Your task to perform on an android device: open device folders in google photos Image 0: 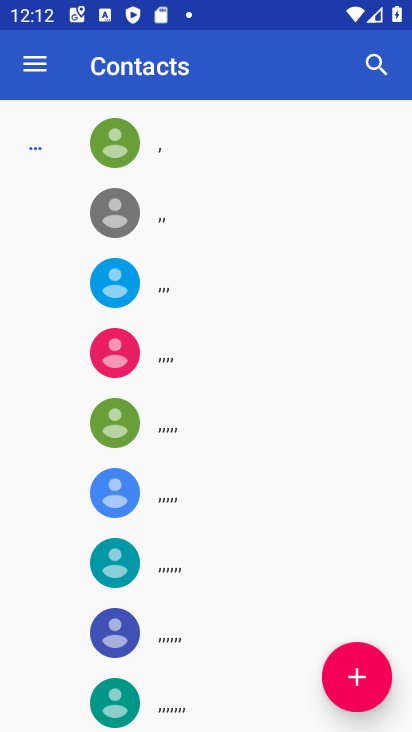
Step 0: press home button
Your task to perform on an android device: open device folders in google photos Image 1: 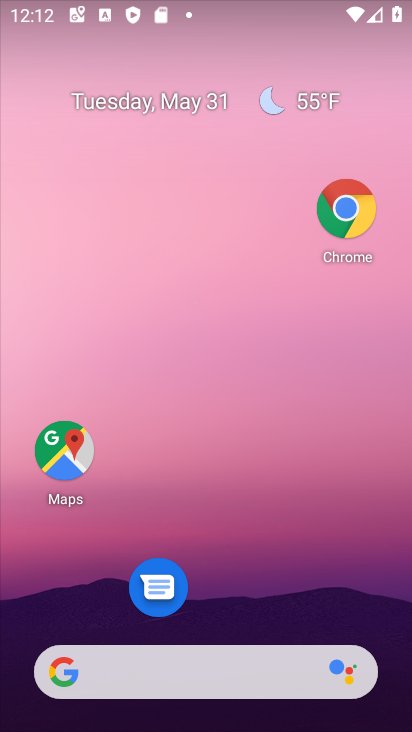
Step 1: drag from (225, 615) to (273, 122)
Your task to perform on an android device: open device folders in google photos Image 2: 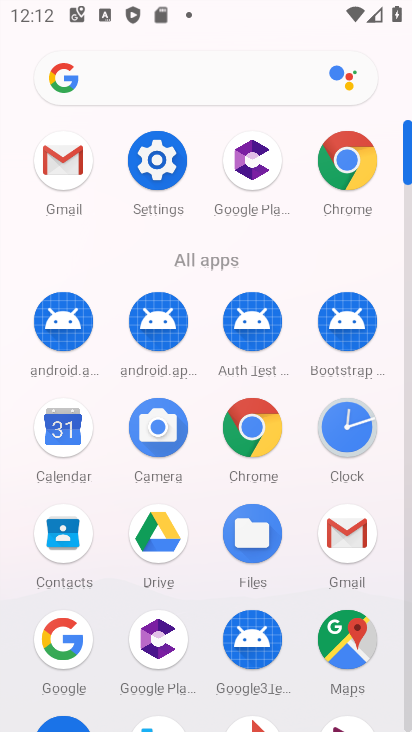
Step 2: drag from (227, 539) to (241, 248)
Your task to perform on an android device: open device folders in google photos Image 3: 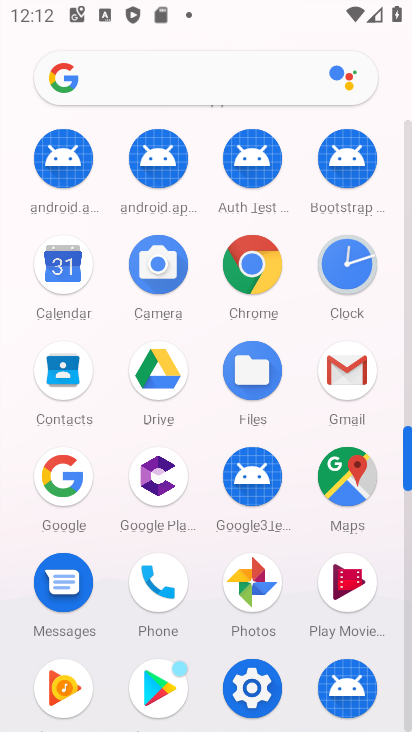
Step 3: click (263, 593)
Your task to perform on an android device: open device folders in google photos Image 4: 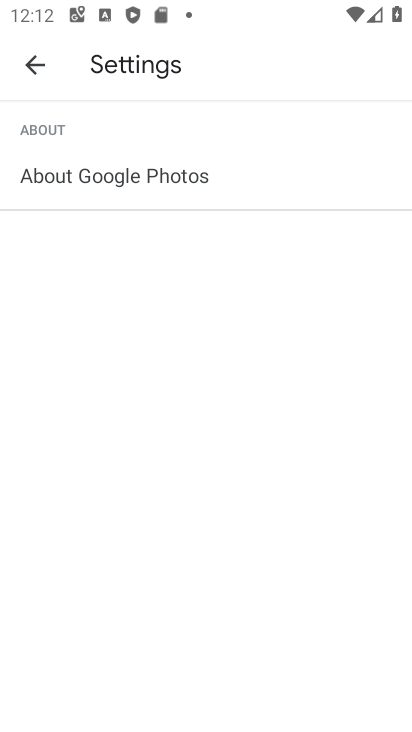
Step 4: click (48, 61)
Your task to perform on an android device: open device folders in google photos Image 5: 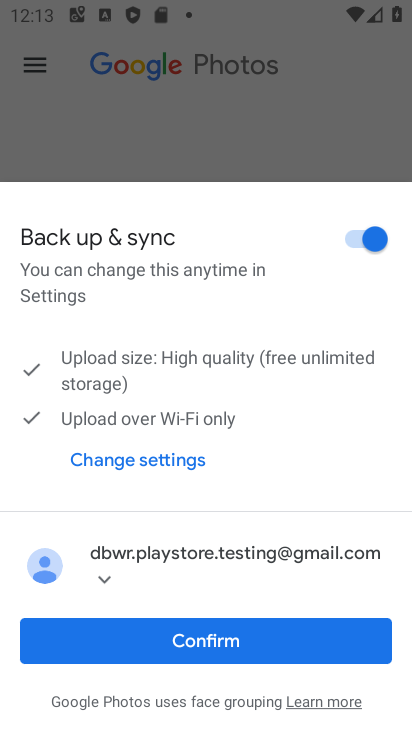
Step 5: click (299, 630)
Your task to perform on an android device: open device folders in google photos Image 6: 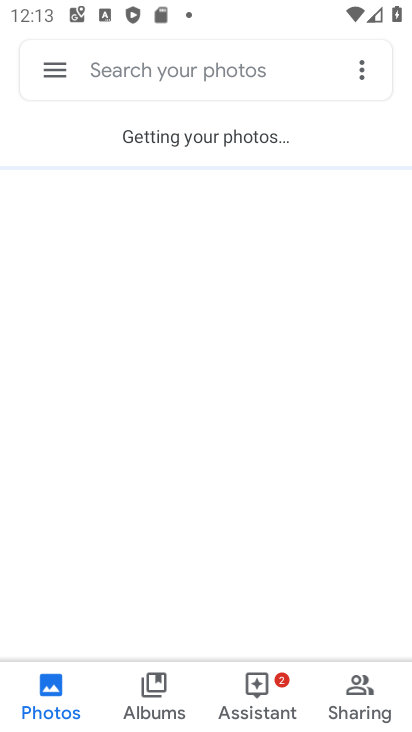
Step 6: click (66, 79)
Your task to perform on an android device: open device folders in google photos Image 7: 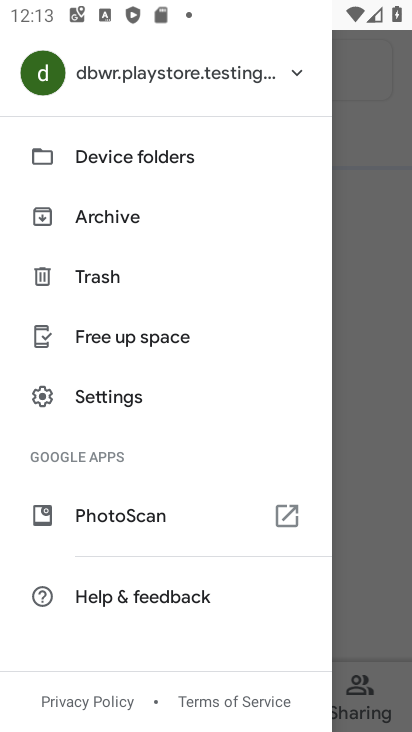
Step 7: click (130, 143)
Your task to perform on an android device: open device folders in google photos Image 8: 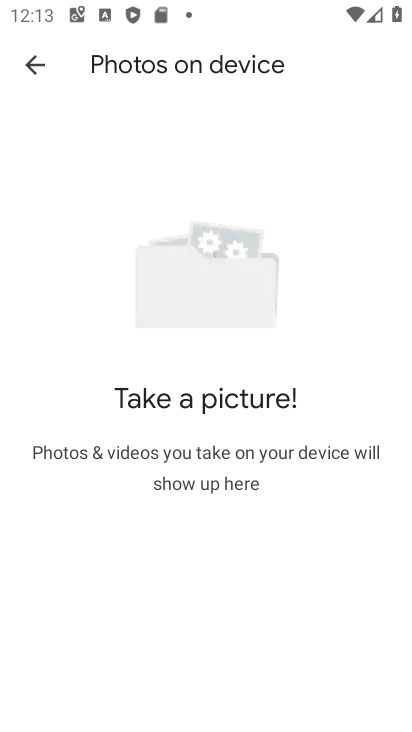
Step 8: task complete